Your task to perform on an android device: Search for Italian restaurants on Maps Image 0: 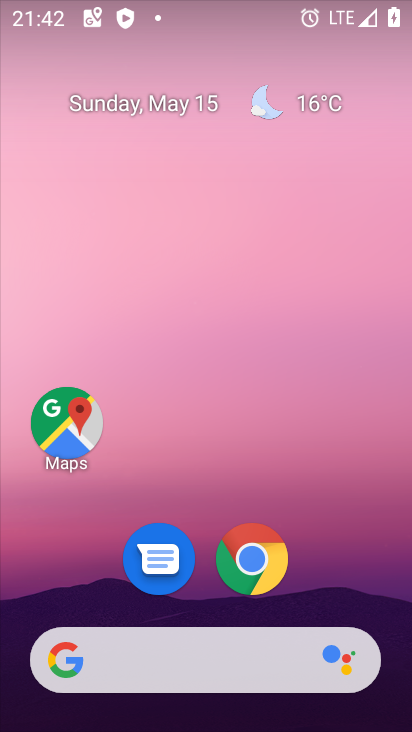
Step 0: click (74, 438)
Your task to perform on an android device: Search for Italian restaurants on Maps Image 1: 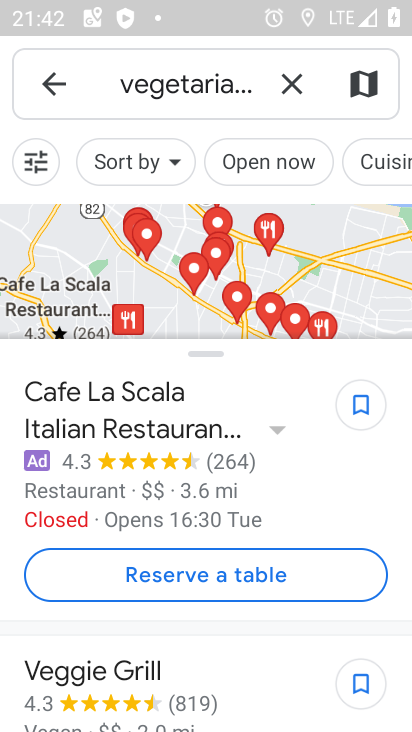
Step 1: click (286, 80)
Your task to perform on an android device: Search for Italian restaurants on Maps Image 2: 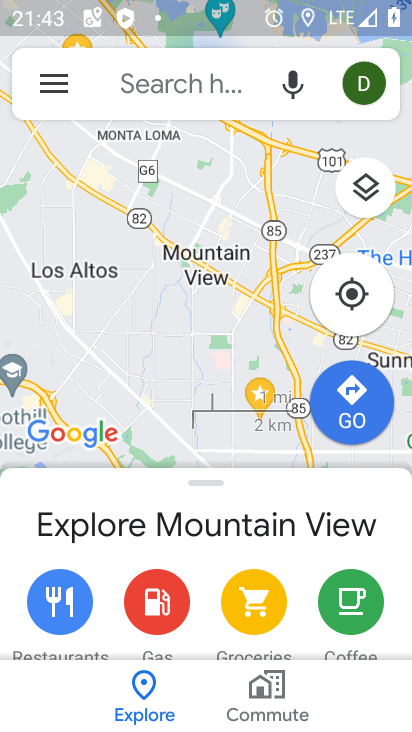
Step 2: click (182, 94)
Your task to perform on an android device: Search for Italian restaurants on Maps Image 3: 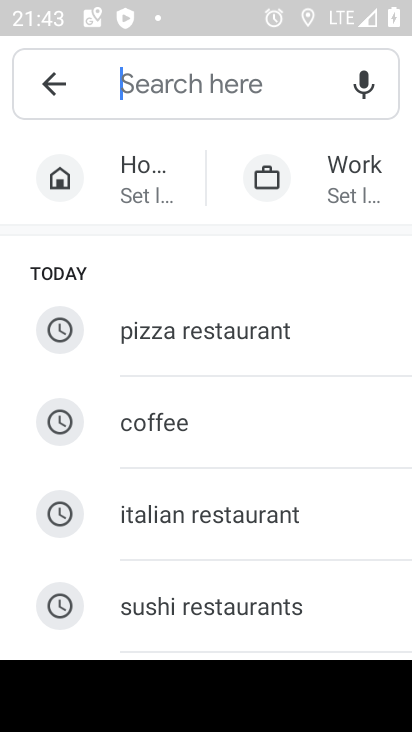
Step 3: click (244, 511)
Your task to perform on an android device: Search for Italian restaurants on Maps Image 4: 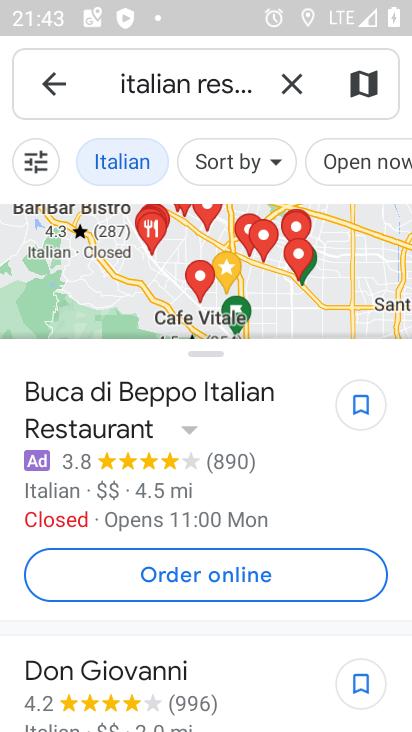
Step 4: task complete